Your task to perform on an android device: allow notifications from all sites in the chrome app Image 0: 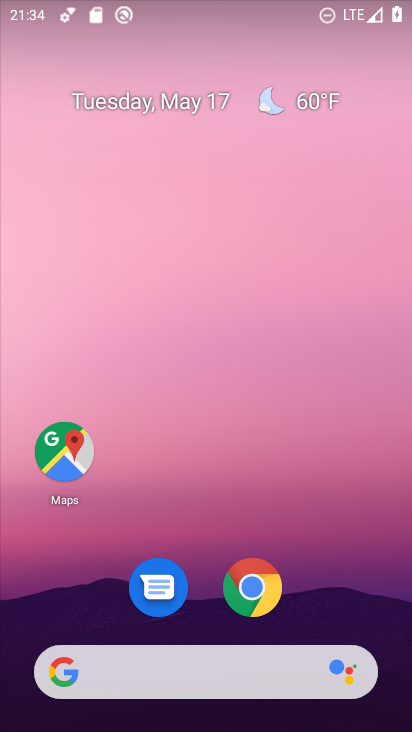
Step 0: drag from (274, 544) to (165, 219)
Your task to perform on an android device: allow notifications from all sites in the chrome app Image 1: 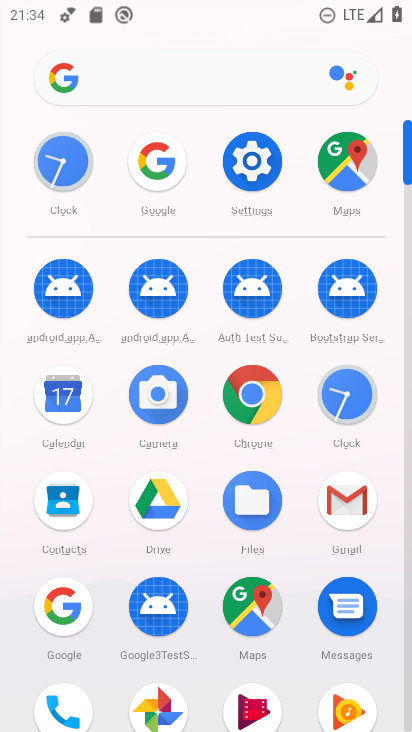
Step 1: click (274, 394)
Your task to perform on an android device: allow notifications from all sites in the chrome app Image 2: 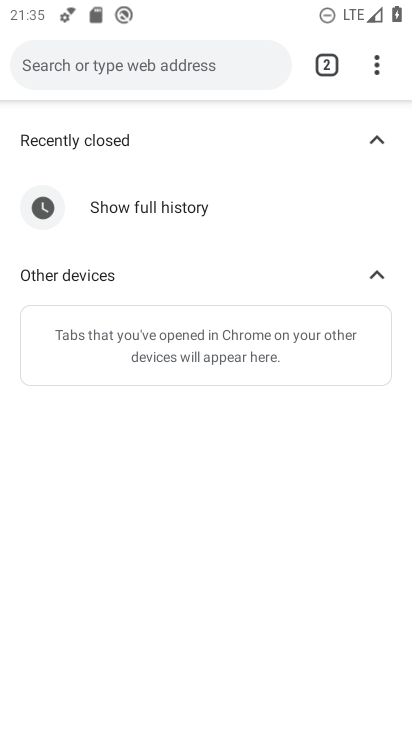
Step 2: click (376, 61)
Your task to perform on an android device: allow notifications from all sites in the chrome app Image 3: 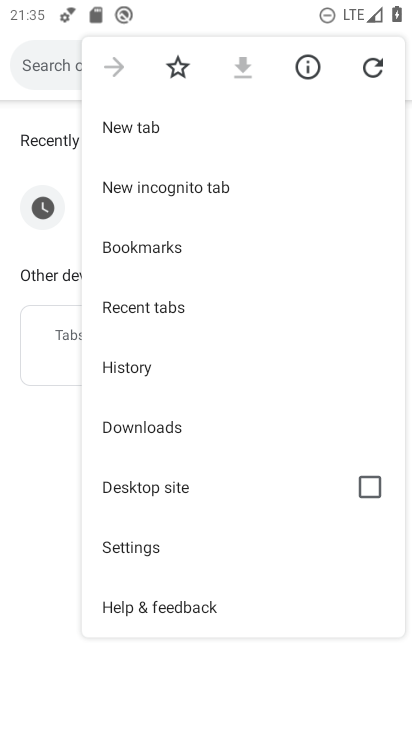
Step 3: click (163, 558)
Your task to perform on an android device: allow notifications from all sites in the chrome app Image 4: 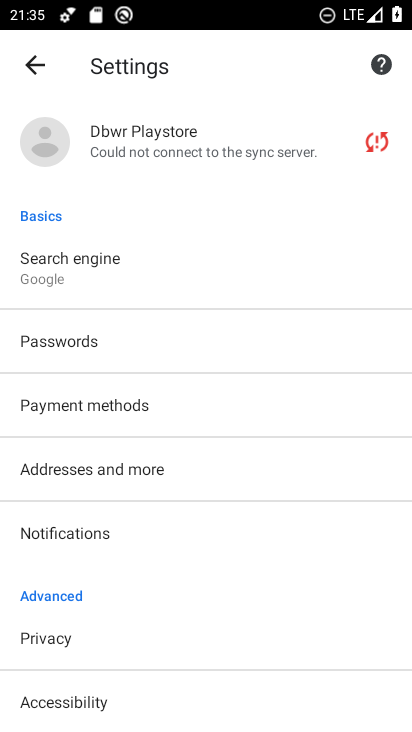
Step 4: click (111, 520)
Your task to perform on an android device: allow notifications from all sites in the chrome app Image 5: 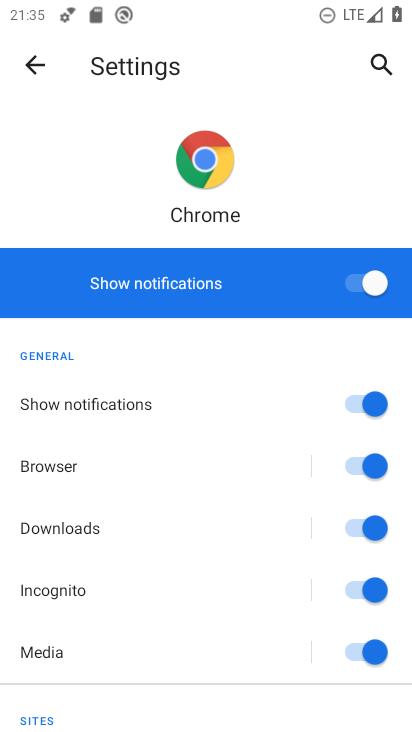
Step 5: drag from (312, 519) to (159, 149)
Your task to perform on an android device: allow notifications from all sites in the chrome app Image 6: 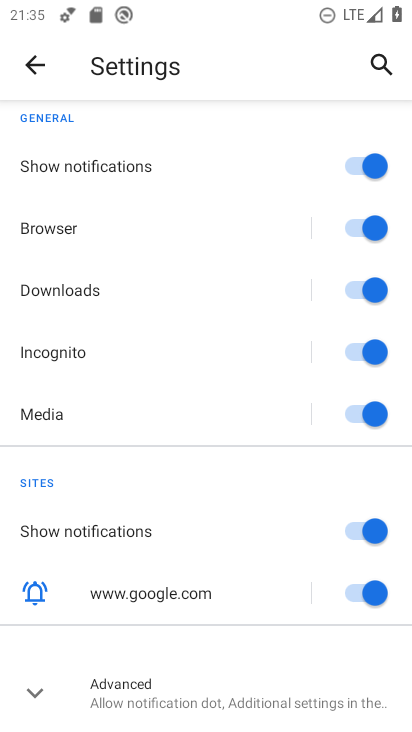
Step 6: click (188, 701)
Your task to perform on an android device: allow notifications from all sites in the chrome app Image 7: 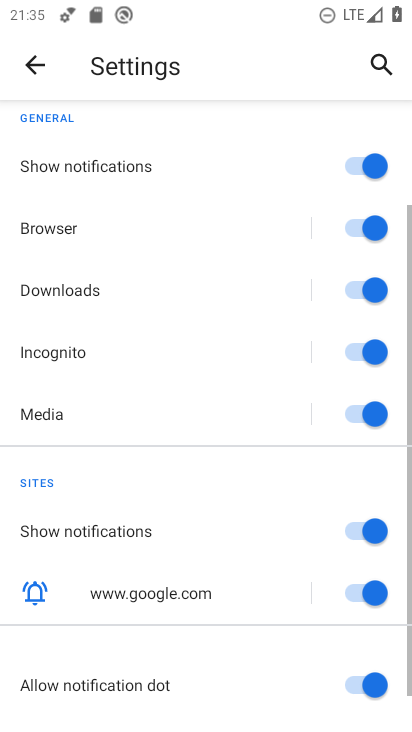
Step 7: task complete